Your task to perform on an android device: Open the Play Movies app and select the watchlist tab. Image 0: 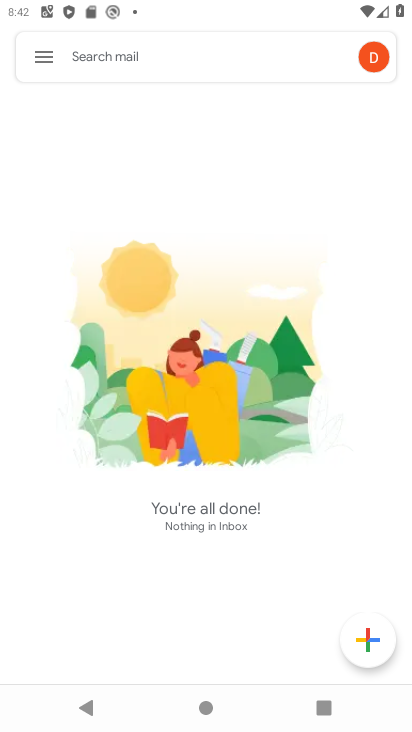
Step 0: press home button
Your task to perform on an android device: Open the Play Movies app and select the watchlist tab. Image 1: 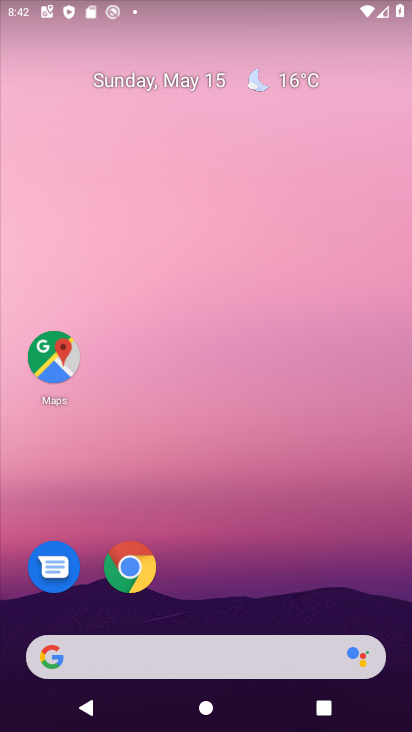
Step 1: drag from (213, 658) to (174, 221)
Your task to perform on an android device: Open the Play Movies app and select the watchlist tab. Image 2: 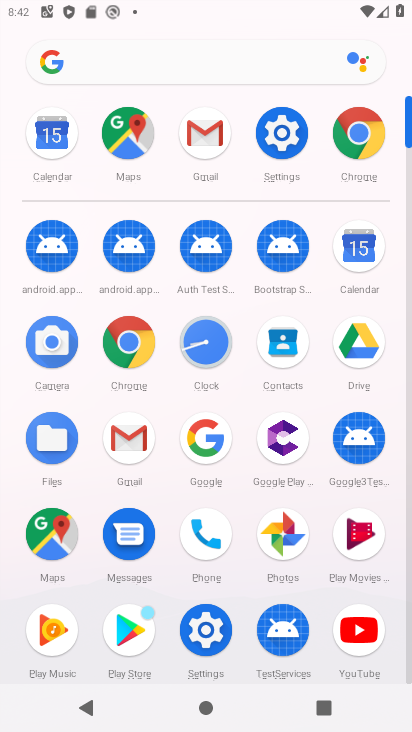
Step 2: click (356, 540)
Your task to perform on an android device: Open the Play Movies app and select the watchlist tab. Image 3: 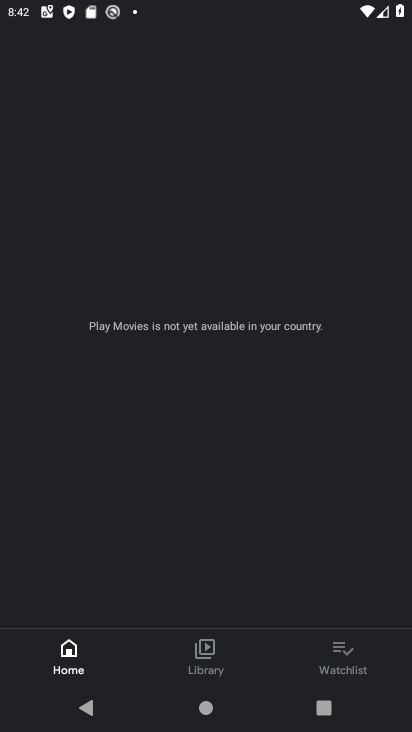
Step 3: click (334, 651)
Your task to perform on an android device: Open the Play Movies app and select the watchlist tab. Image 4: 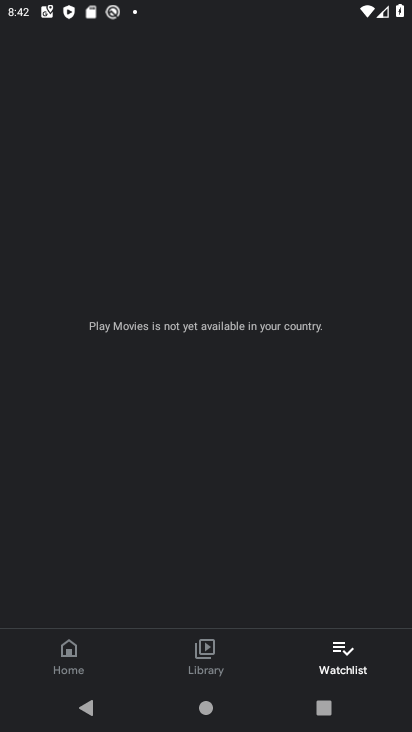
Step 4: task complete